Your task to perform on an android device: open app "TextNow: Call + Text Unlimited" Image 0: 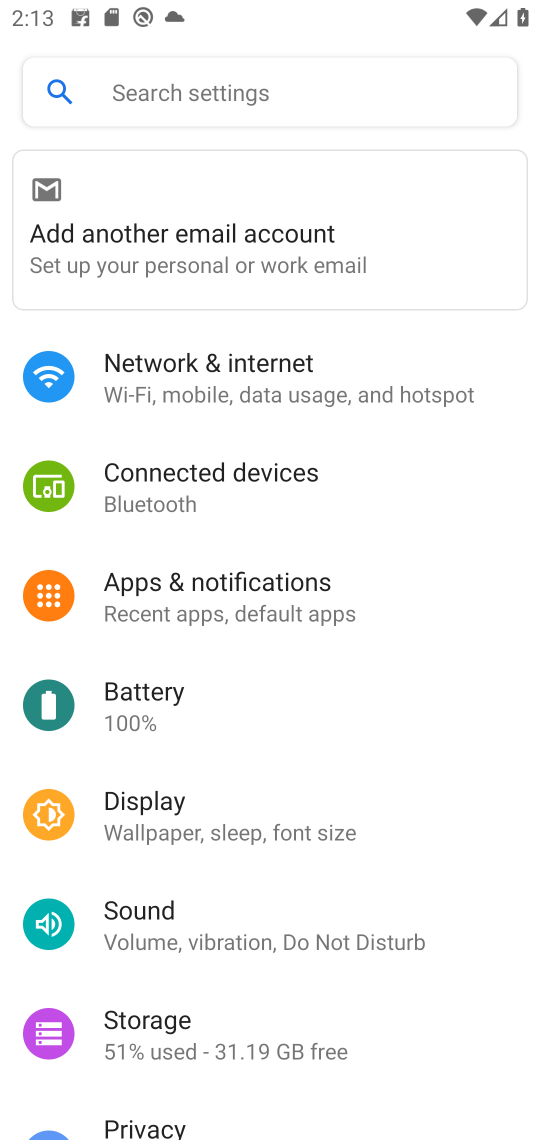
Step 0: press home button
Your task to perform on an android device: open app "TextNow: Call + Text Unlimited" Image 1: 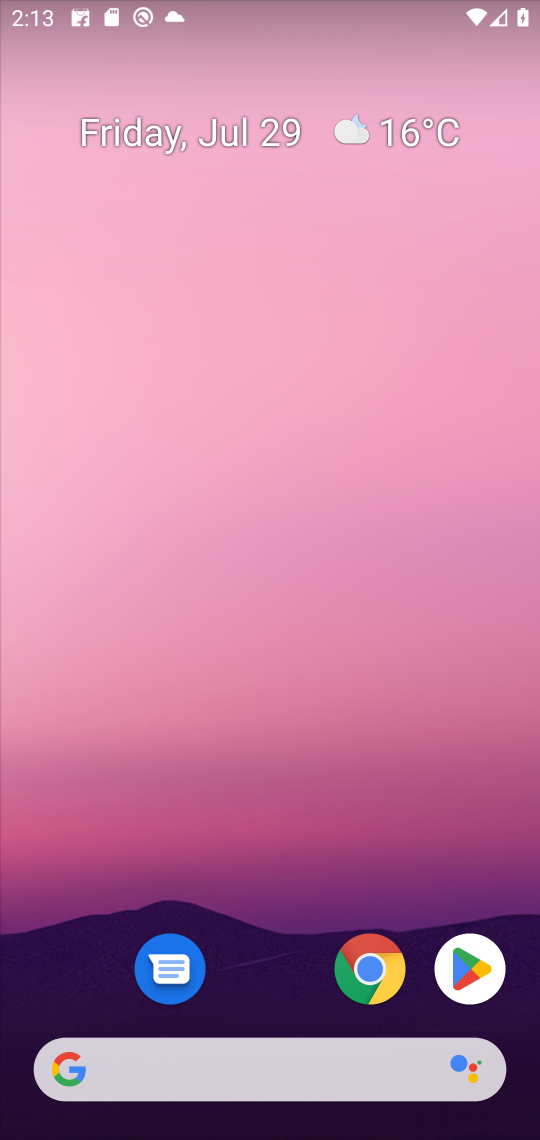
Step 1: click (472, 964)
Your task to perform on an android device: open app "TextNow: Call + Text Unlimited" Image 2: 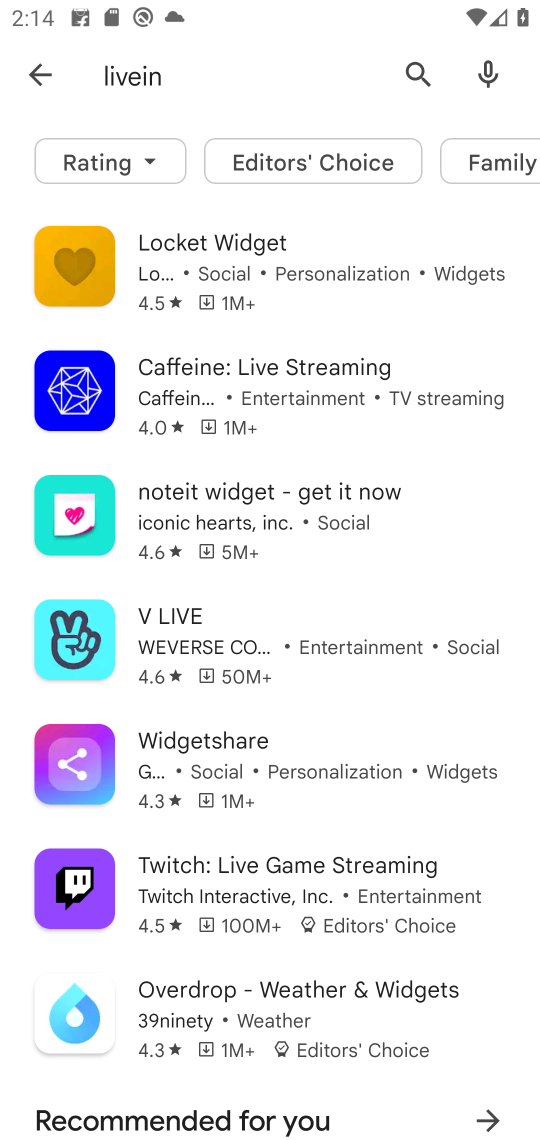
Step 2: click (418, 66)
Your task to perform on an android device: open app "TextNow: Call + Text Unlimited" Image 3: 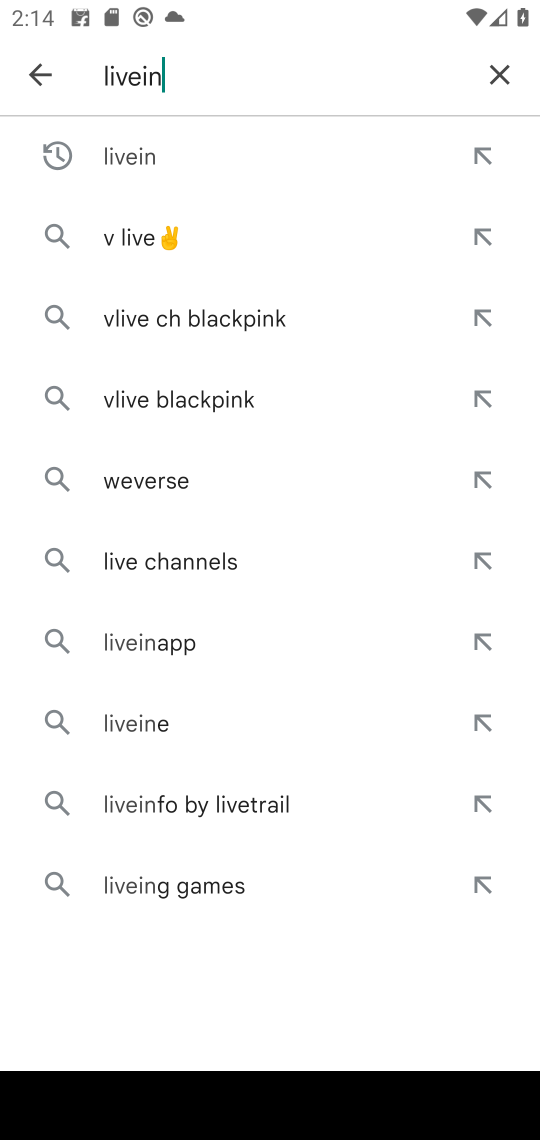
Step 3: click (496, 75)
Your task to perform on an android device: open app "TextNow: Call + Text Unlimited" Image 4: 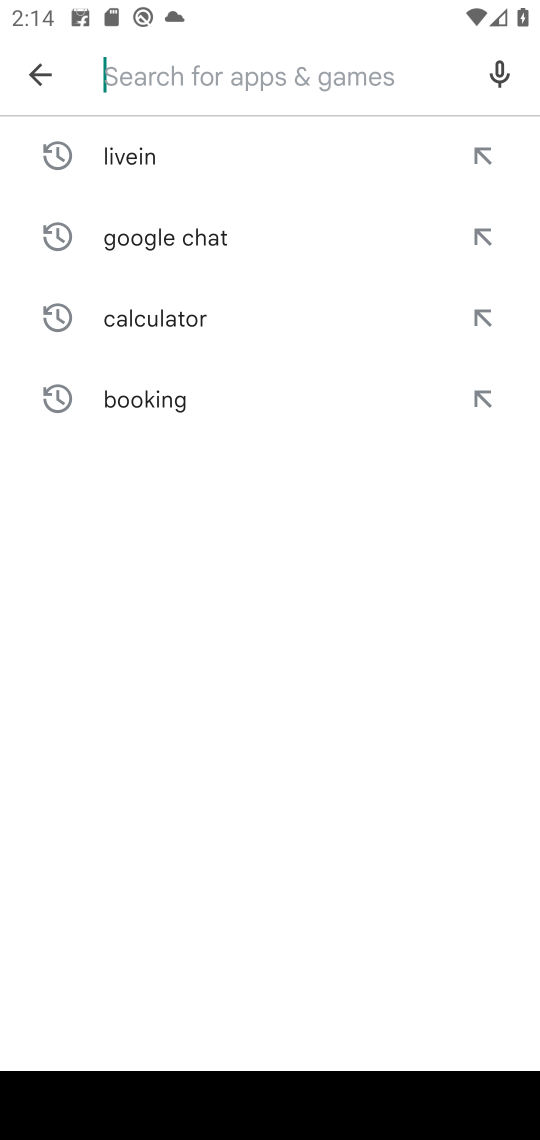
Step 4: type "textnow"
Your task to perform on an android device: open app "TextNow: Call + Text Unlimited" Image 5: 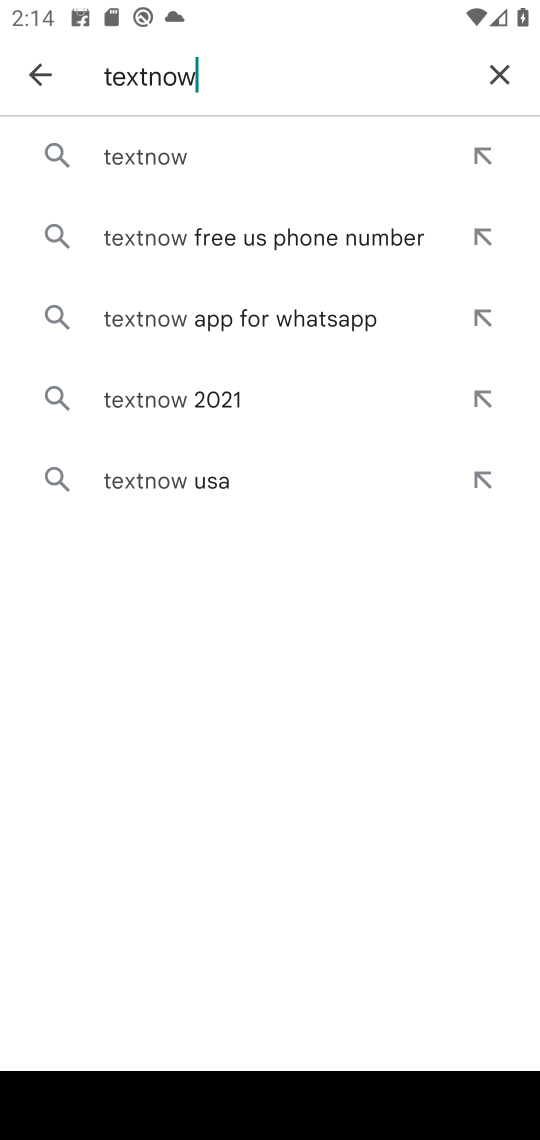
Step 5: click (132, 167)
Your task to perform on an android device: open app "TextNow: Call + Text Unlimited" Image 6: 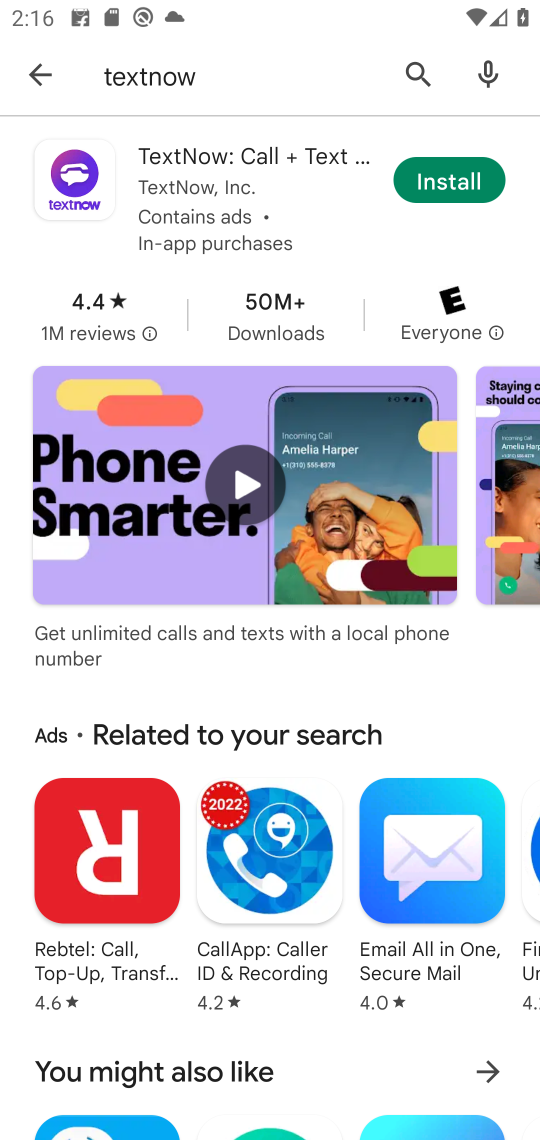
Step 6: task complete